Your task to perform on an android device: turn off improve location accuracy Image 0: 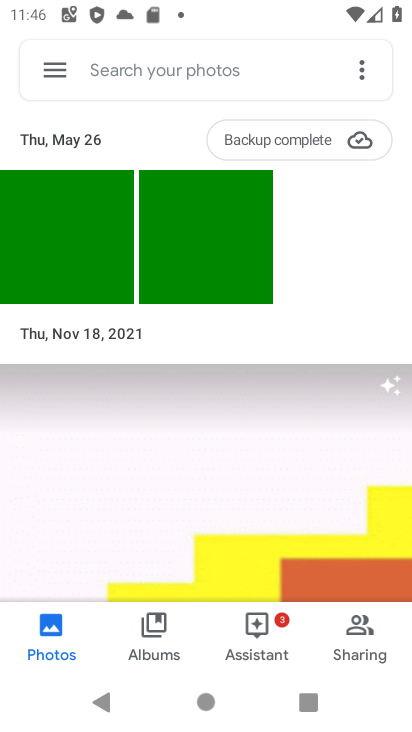
Step 0: press home button
Your task to perform on an android device: turn off improve location accuracy Image 1: 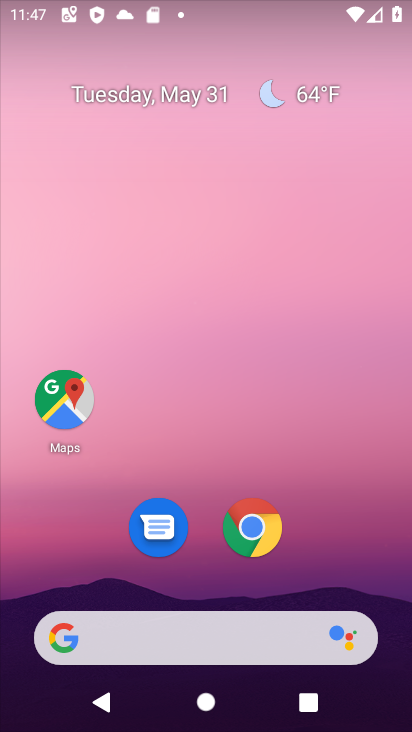
Step 1: click (77, 399)
Your task to perform on an android device: turn off improve location accuracy Image 2: 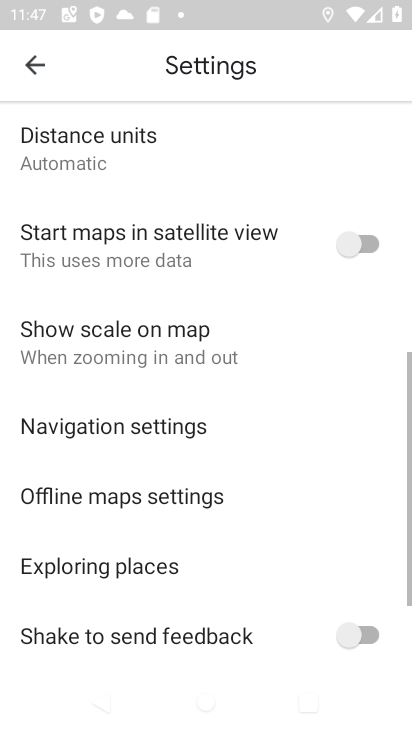
Step 2: drag from (210, 231) to (280, 671)
Your task to perform on an android device: turn off improve location accuracy Image 3: 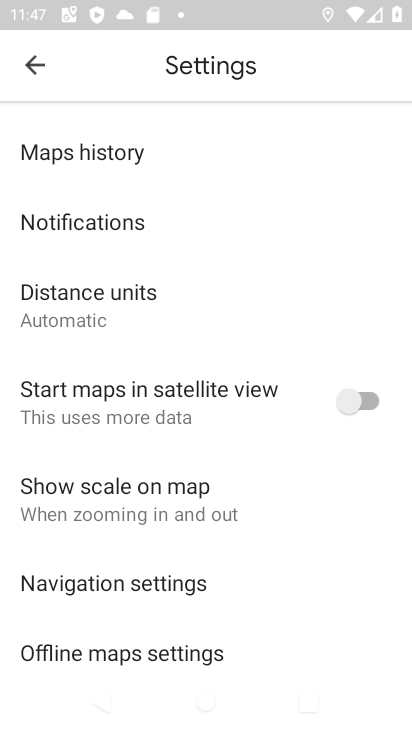
Step 3: drag from (175, 188) to (193, 698)
Your task to perform on an android device: turn off improve location accuracy Image 4: 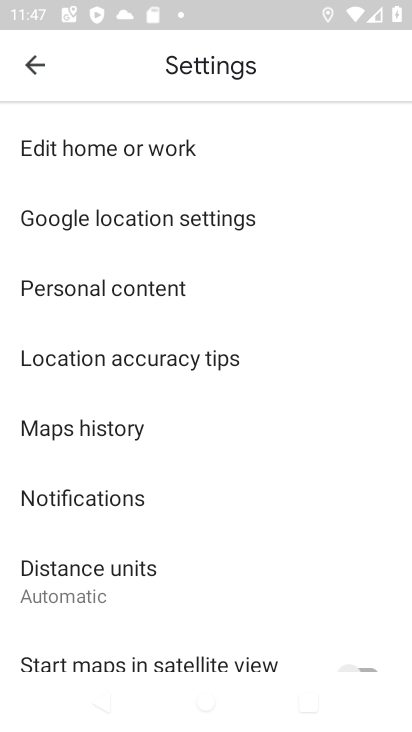
Step 4: click (188, 210)
Your task to perform on an android device: turn off improve location accuracy Image 5: 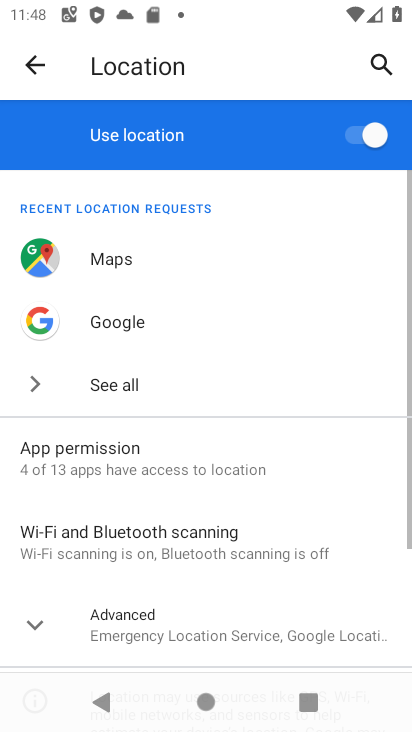
Step 5: click (259, 646)
Your task to perform on an android device: turn off improve location accuracy Image 6: 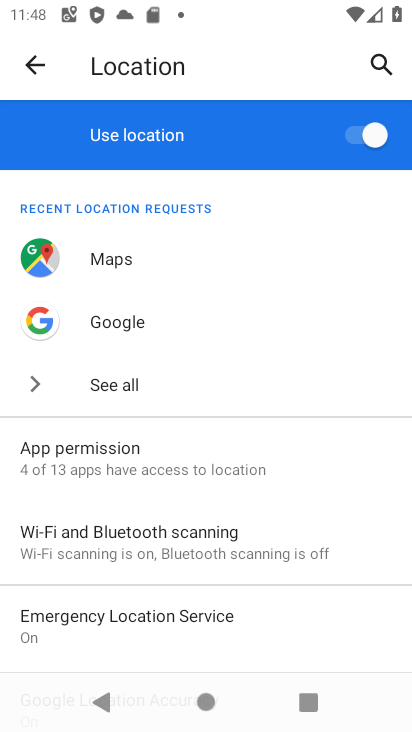
Step 6: drag from (233, 620) to (240, 198)
Your task to perform on an android device: turn off improve location accuracy Image 7: 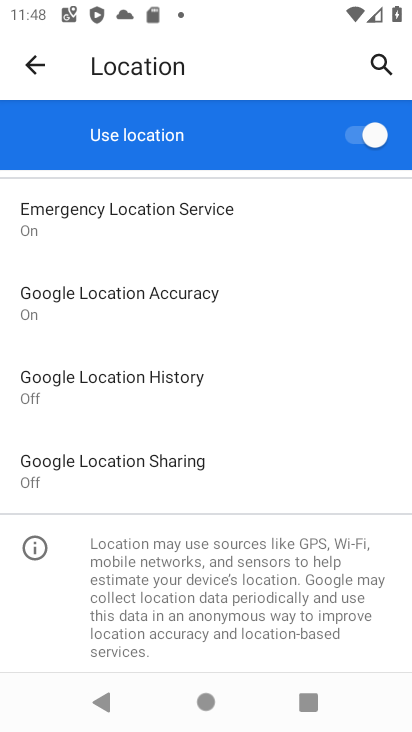
Step 7: click (204, 288)
Your task to perform on an android device: turn off improve location accuracy Image 8: 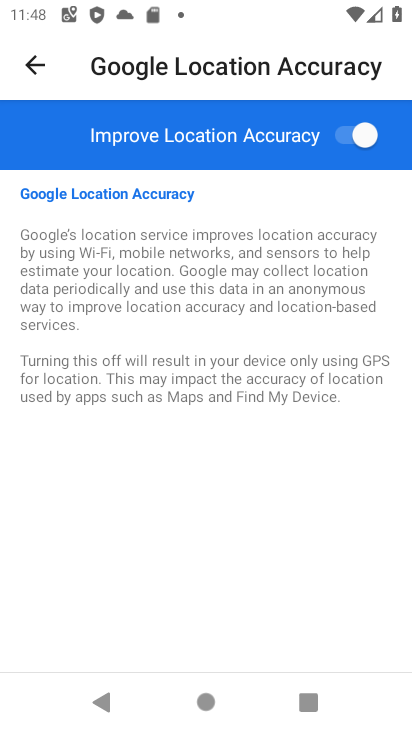
Step 8: click (363, 136)
Your task to perform on an android device: turn off improve location accuracy Image 9: 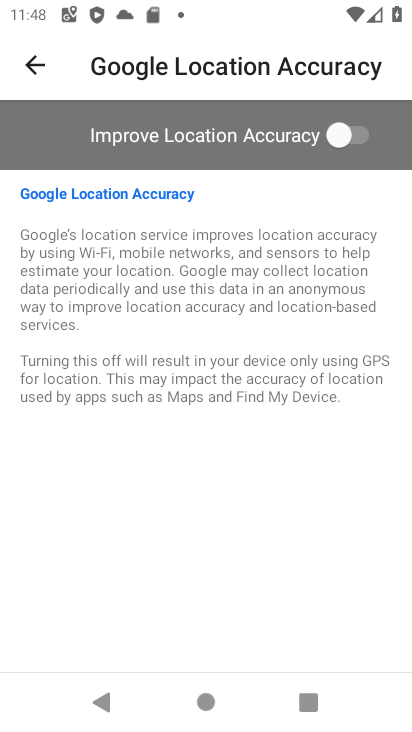
Step 9: task complete